Your task to perform on an android device: Clear the shopping cart on newegg.com. Search for duracell triple a on newegg.com, select the first entry, and add it to the cart. Image 0: 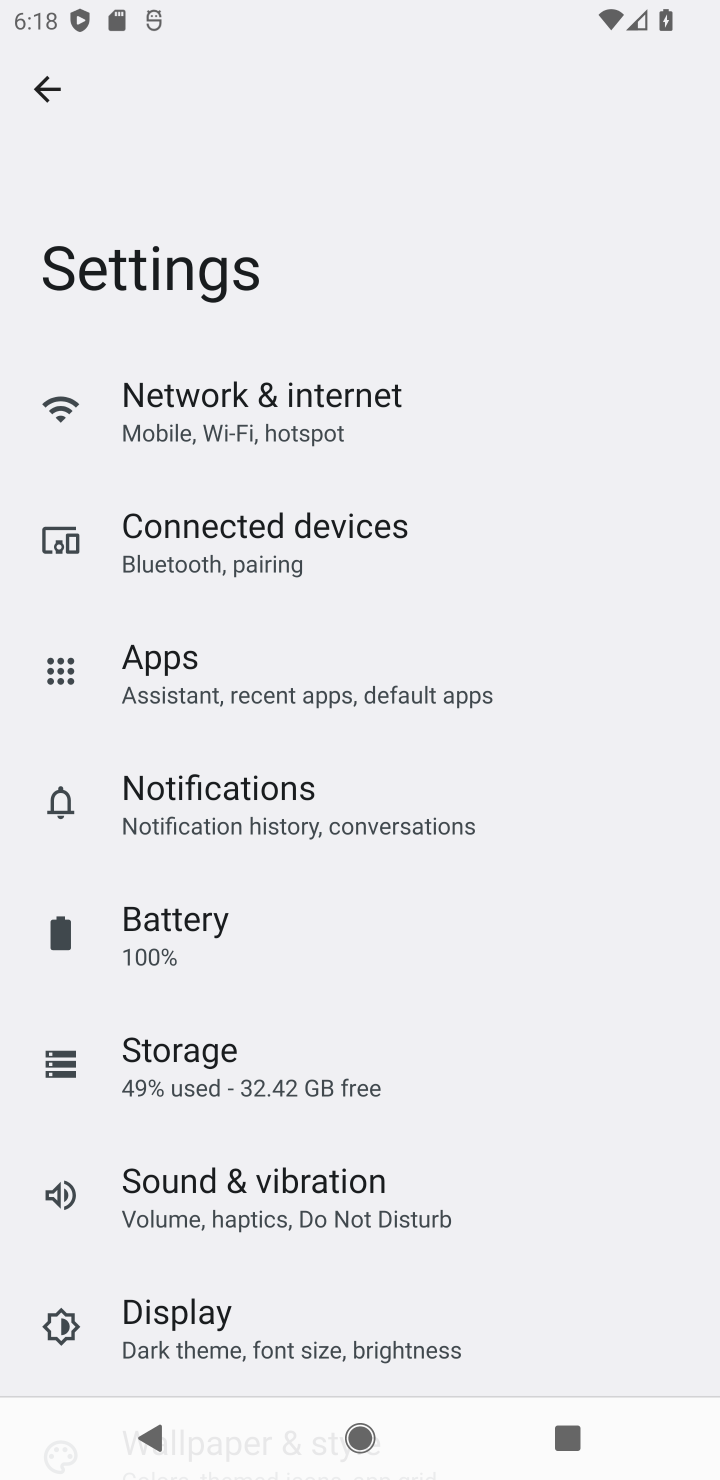
Step 0: press home button
Your task to perform on an android device: Clear the shopping cart on newegg.com. Search for duracell triple a on newegg.com, select the first entry, and add it to the cart. Image 1: 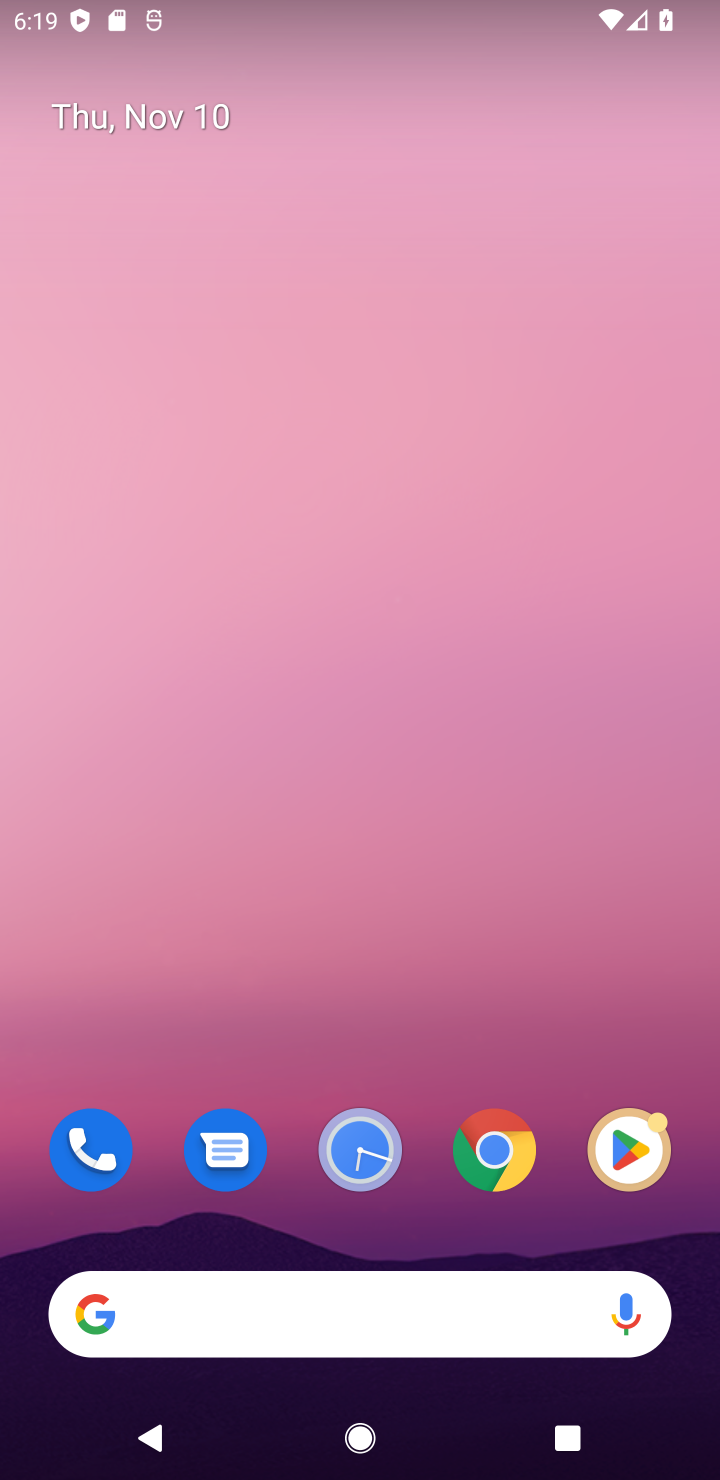
Step 1: click (491, 1156)
Your task to perform on an android device: Clear the shopping cart on newegg.com. Search for duracell triple a on newegg.com, select the first entry, and add it to the cart. Image 2: 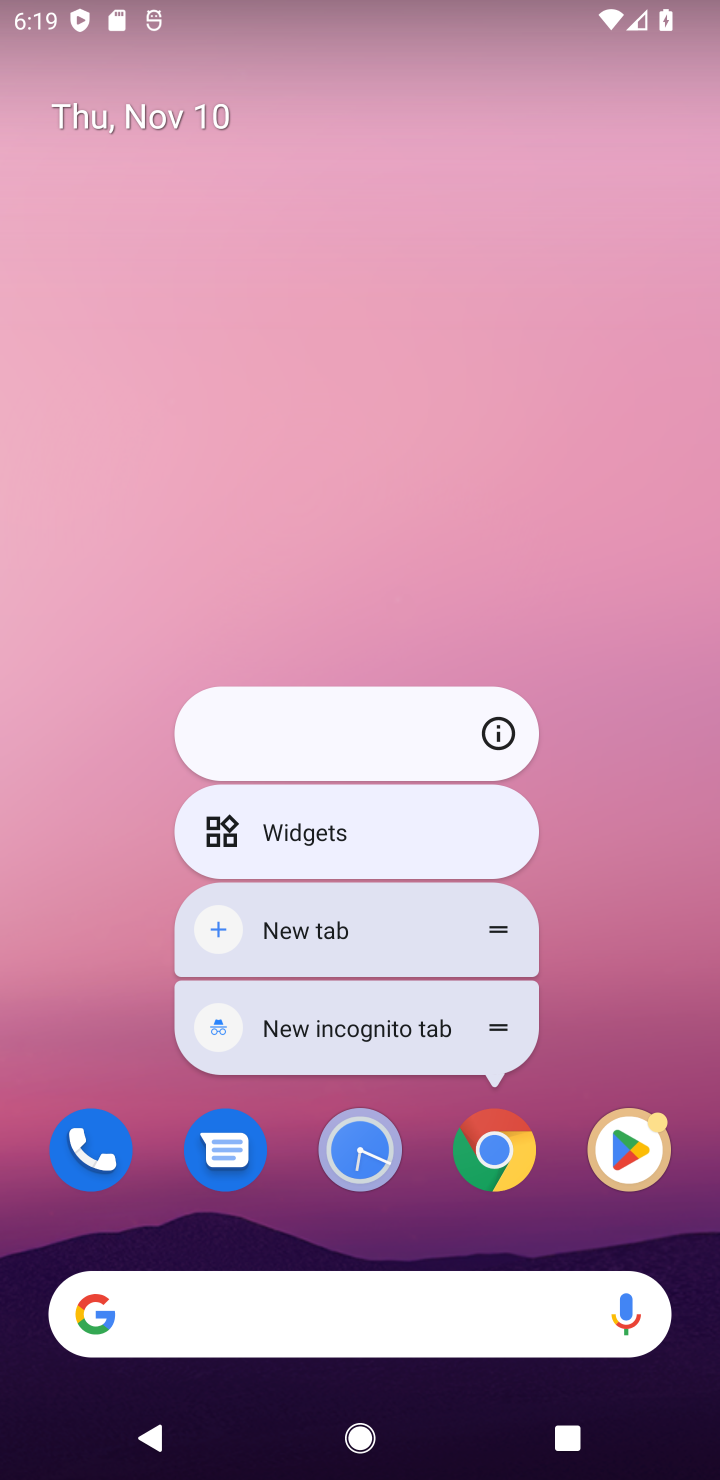
Step 2: click (487, 1159)
Your task to perform on an android device: Clear the shopping cart on newegg.com. Search for duracell triple a on newegg.com, select the first entry, and add it to the cart. Image 3: 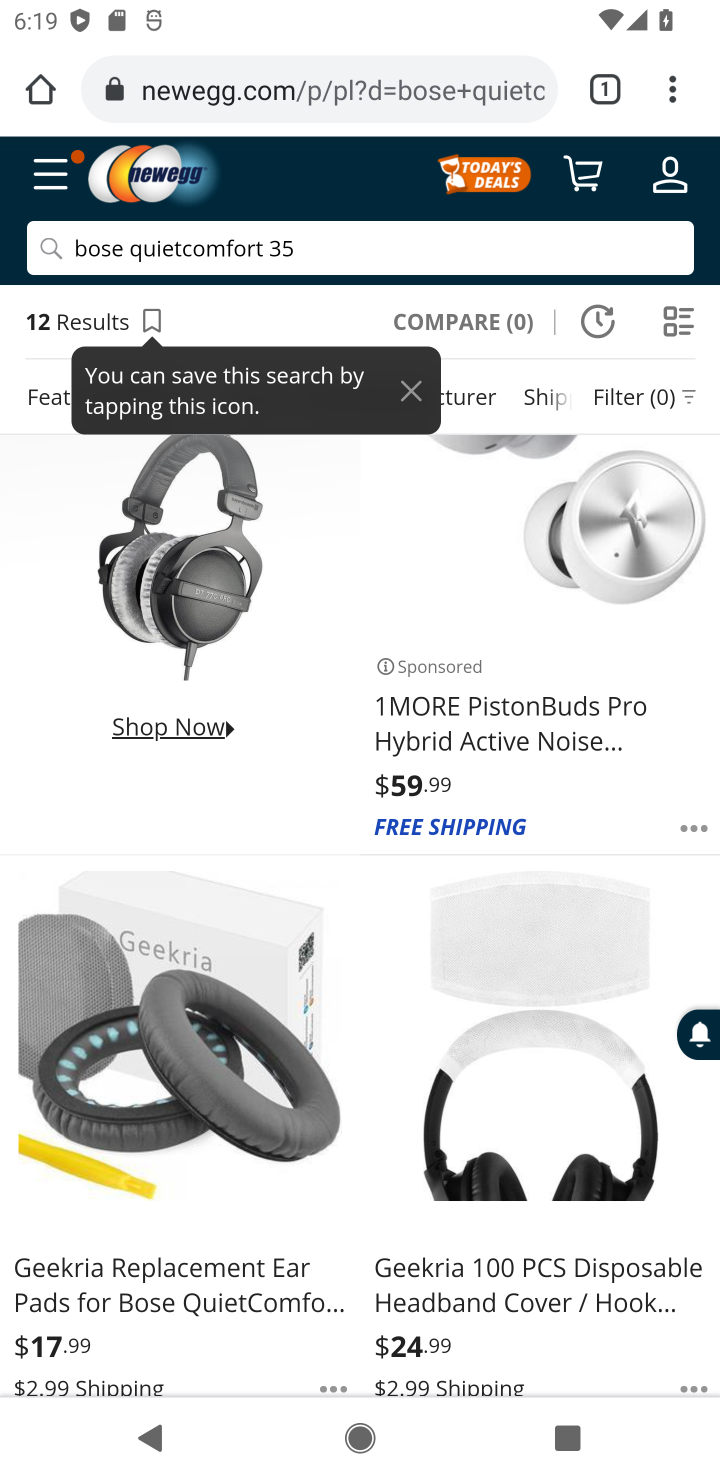
Step 3: click (361, 238)
Your task to perform on an android device: Clear the shopping cart on newegg.com. Search for duracell triple a on newegg.com, select the first entry, and add it to the cart. Image 4: 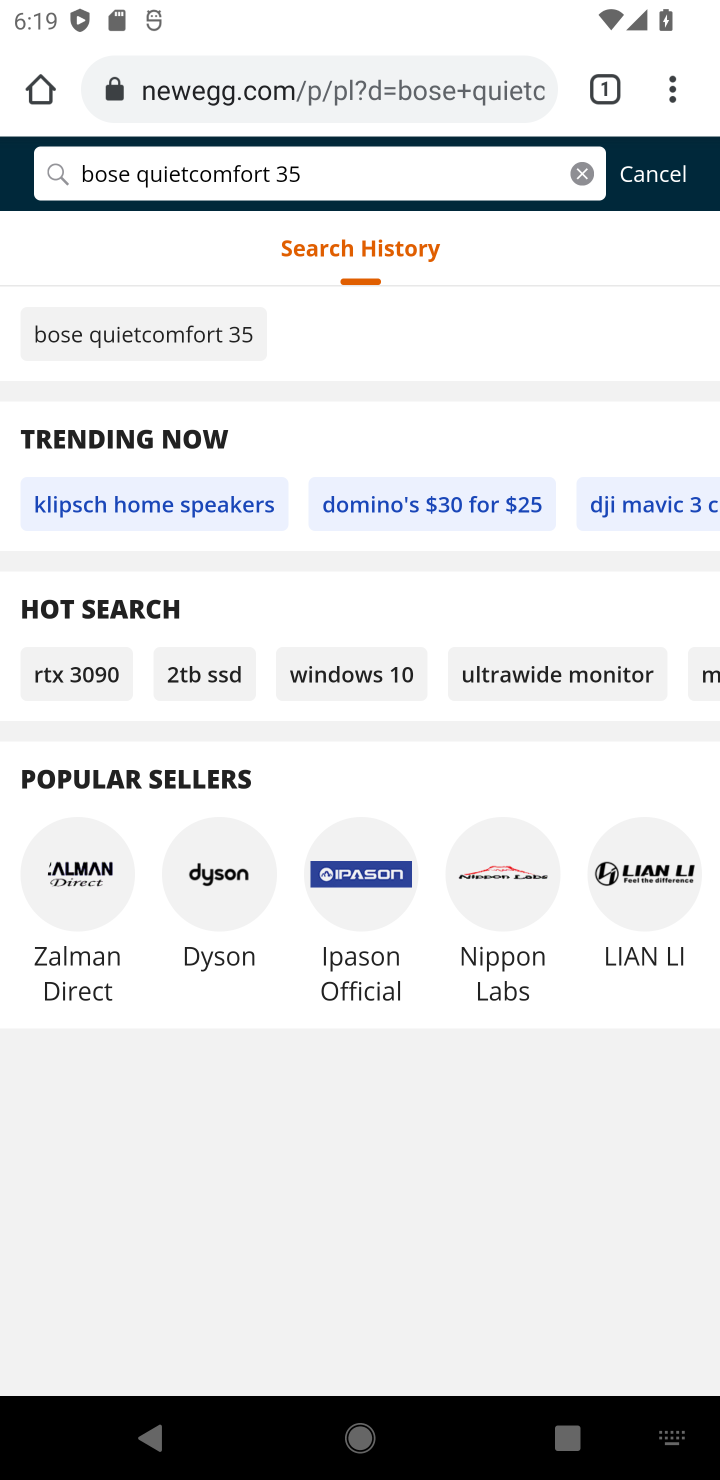
Step 4: click (580, 165)
Your task to perform on an android device: Clear the shopping cart on newegg.com. Search for duracell triple a on newegg.com, select the first entry, and add it to the cart. Image 5: 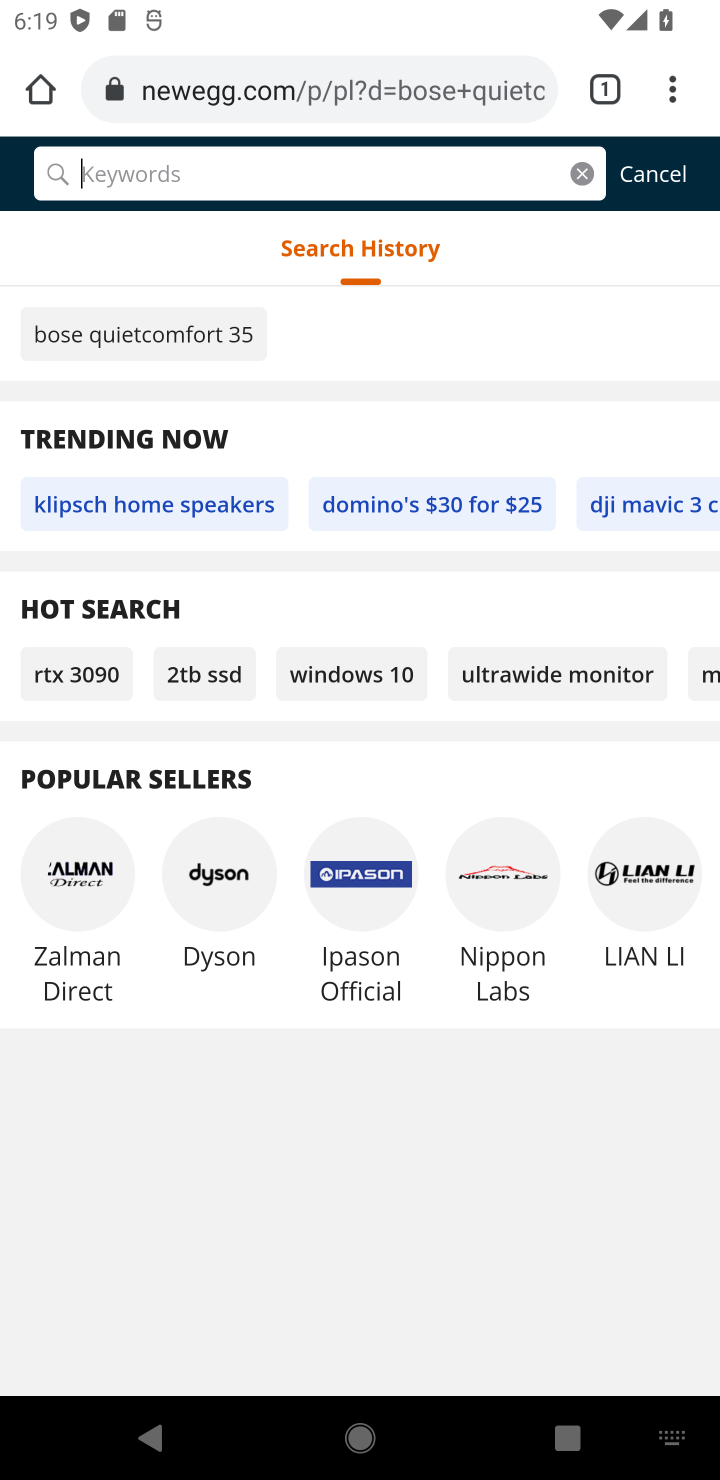
Step 5: type "duracell triple a"
Your task to perform on an android device: Clear the shopping cart on newegg.com. Search for duracell triple a on newegg.com, select the first entry, and add it to the cart. Image 6: 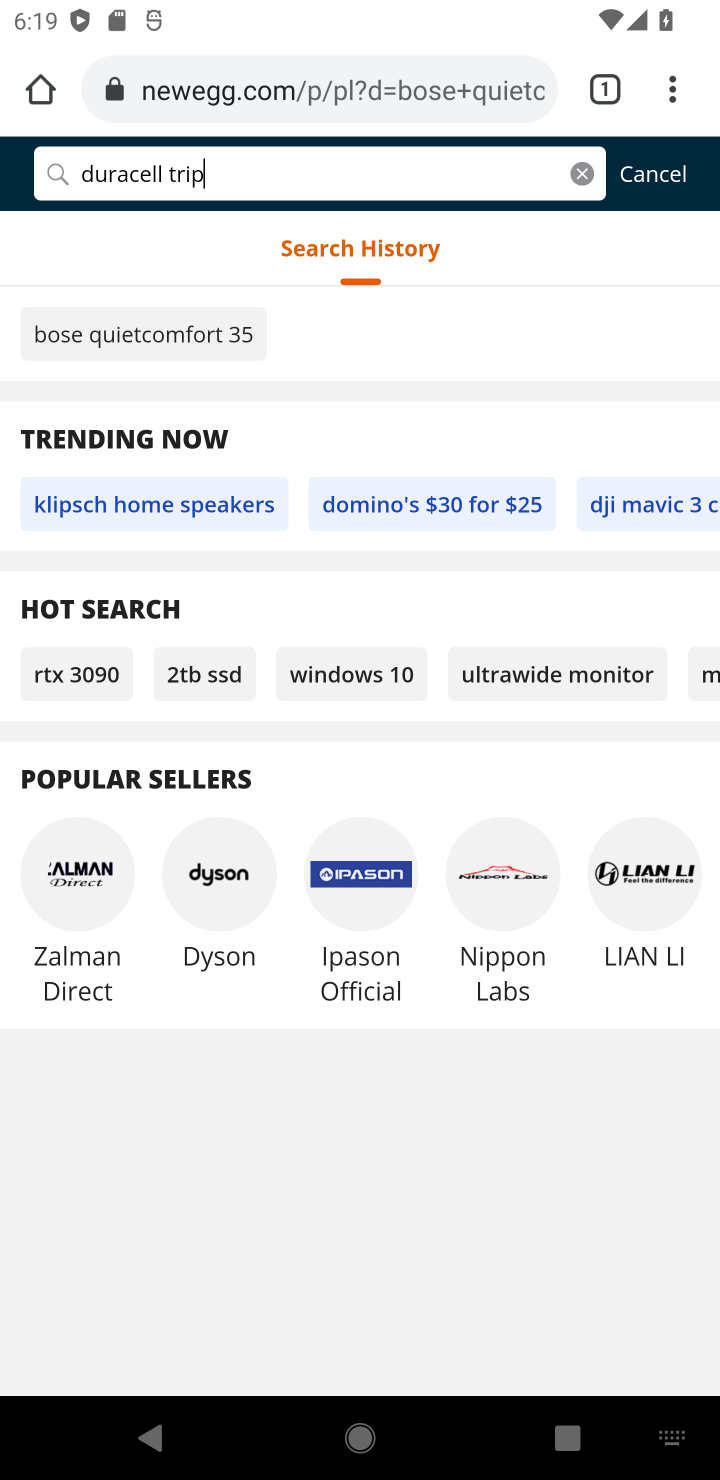
Step 6: press enter
Your task to perform on an android device: Clear the shopping cart on newegg.com. Search for duracell triple a on newegg.com, select the first entry, and add it to the cart. Image 7: 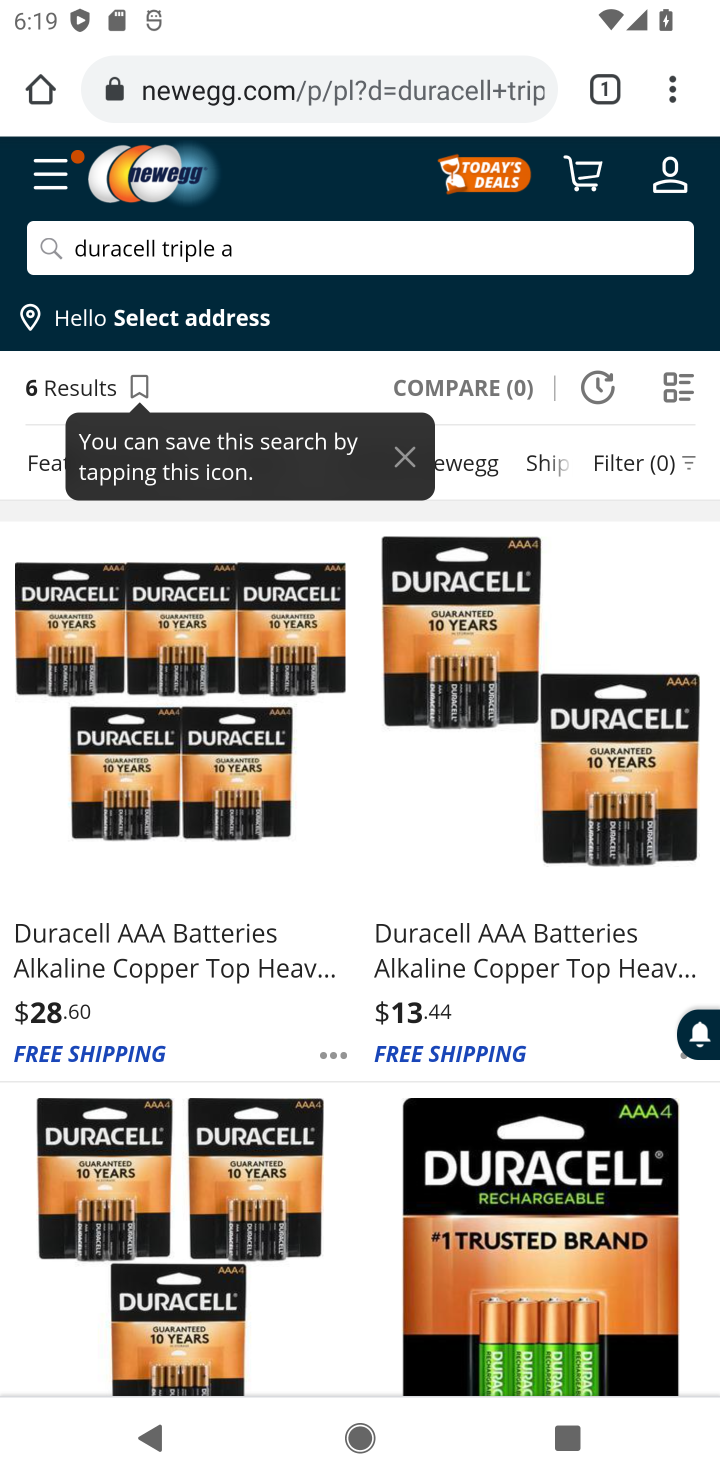
Step 7: click (199, 807)
Your task to perform on an android device: Clear the shopping cart on newegg.com. Search for duracell triple a on newegg.com, select the first entry, and add it to the cart. Image 8: 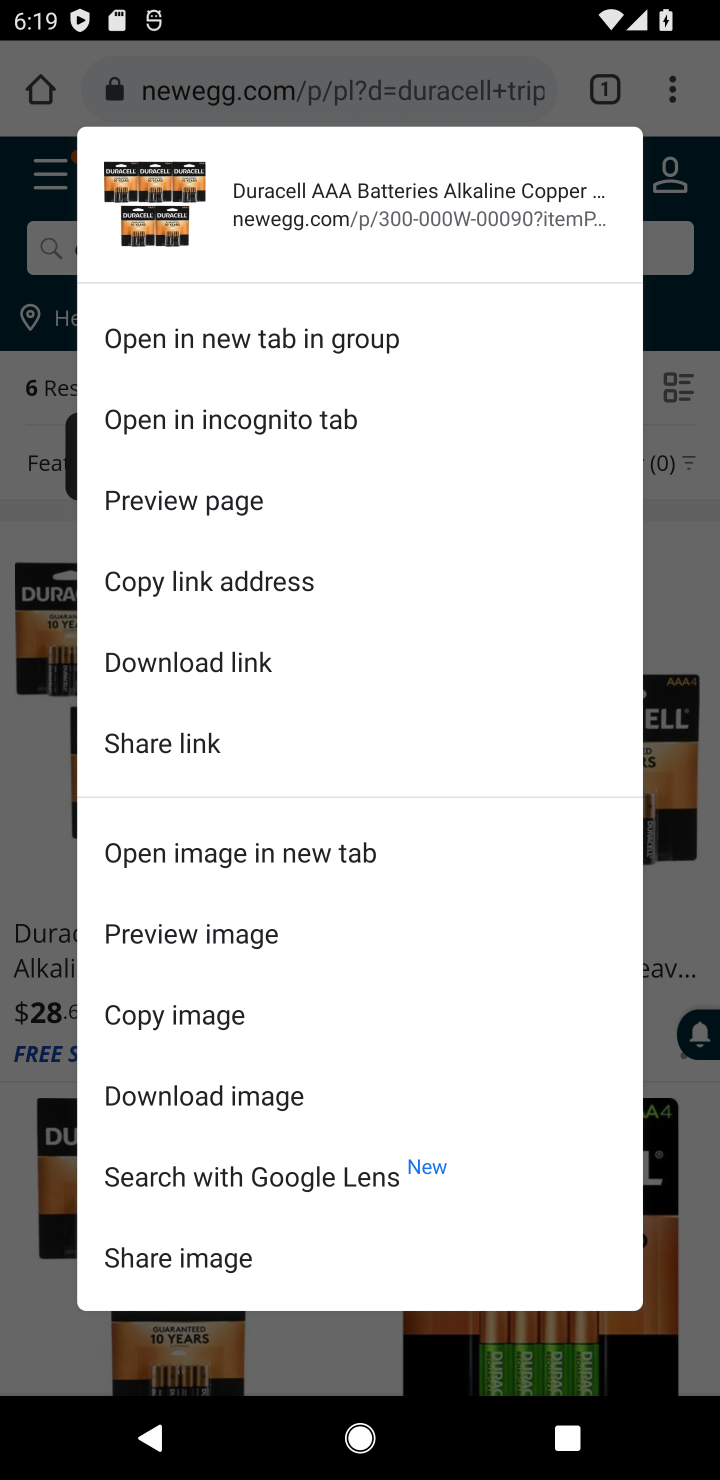
Step 8: click (27, 656)
Your task to perform on an android device: Clear the shopping cart on newegg.com. Search for duracell triple a on newegg.com, select the first entry, and add it to the cart. Image 9: 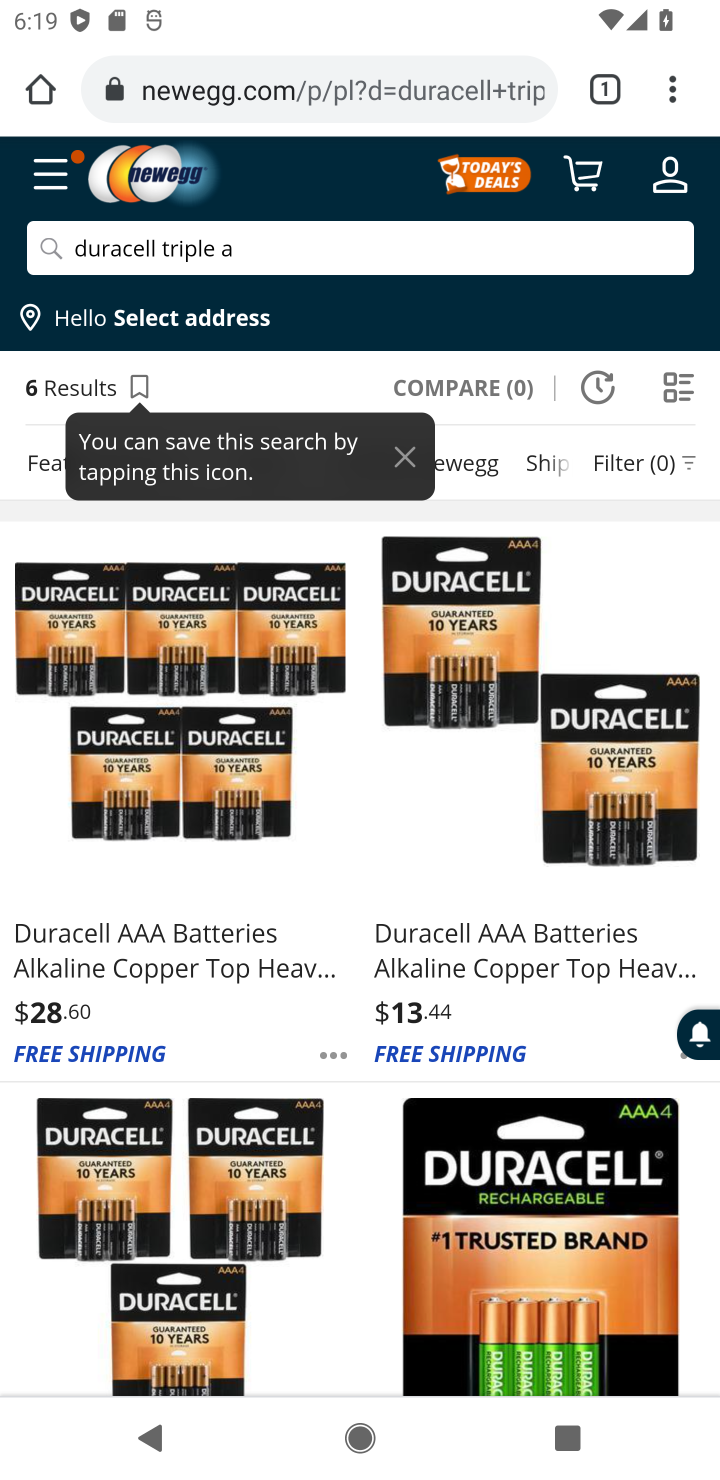
Step 9: click (98, 646)
Your task to perform on an android device: Clear the shopping cart on newegg.com. Search for duracell triple a on newegg.com, select the first entry, and add it to the cart. Image 10: 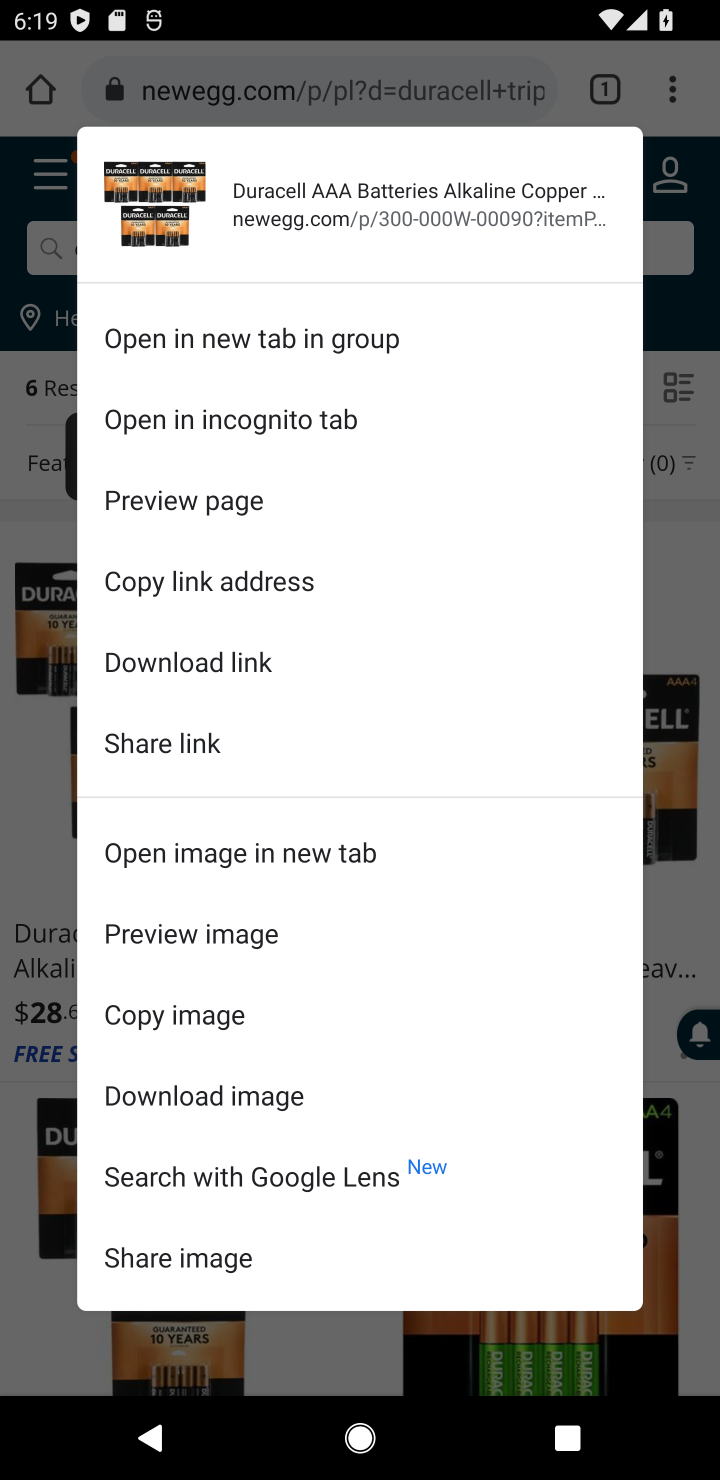
Step 10: click (56, 728)
Your task to perform on an android device: Clear the shopping cart on newegg.com. Search for duracell triple a on newegg.com, select the first entry, and add it to the cart. Image 11: 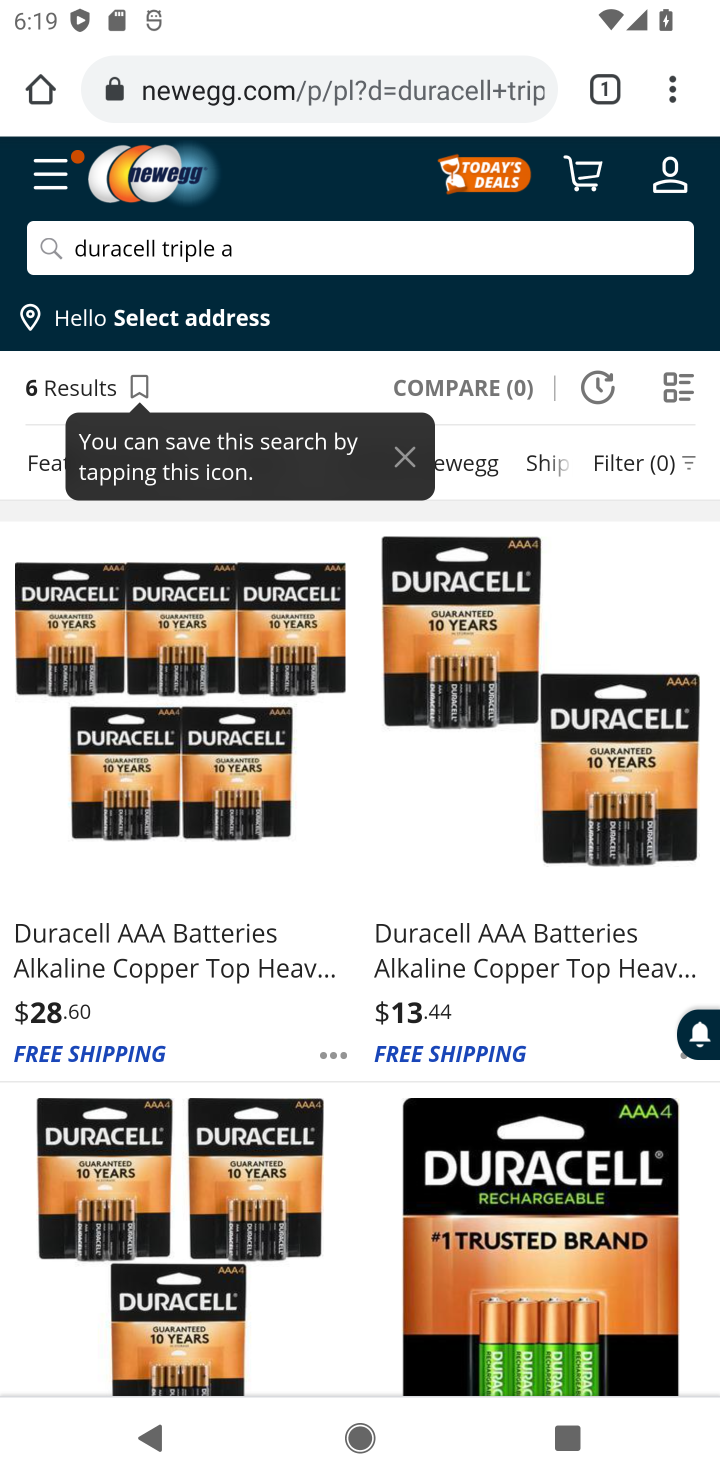
Step 11: click (199, 924)
Your task to perform on an android device: Clear the shopping cart on newegg.com. Search for duracell triple a on newegg.com, select the first entry, and add it to the cart. Image 12: 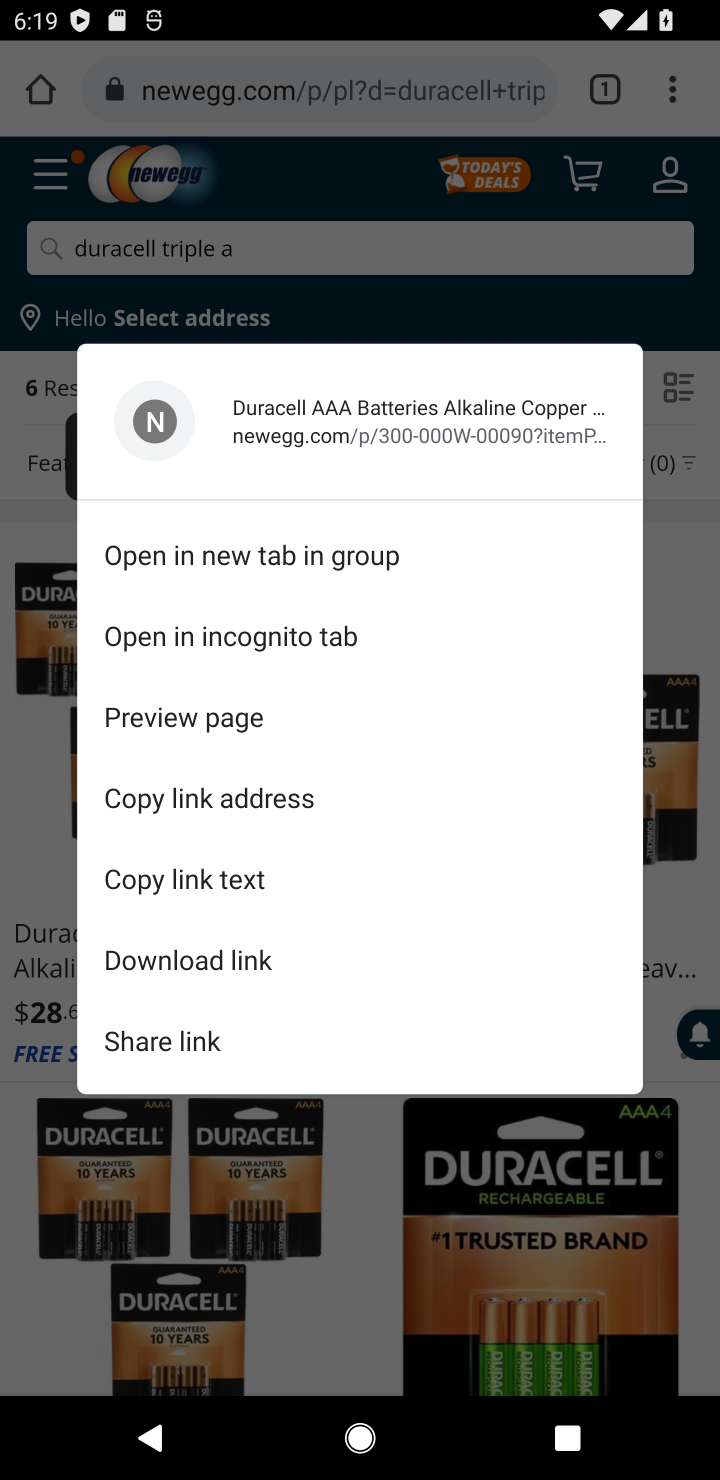
Step 12: click (41, 930)
Your task to perform on an android device: Clear the shopping cart on newegg.com. Search for duracell triple a on newegg.com, select the first entry, and add it to the cart. Image 13: 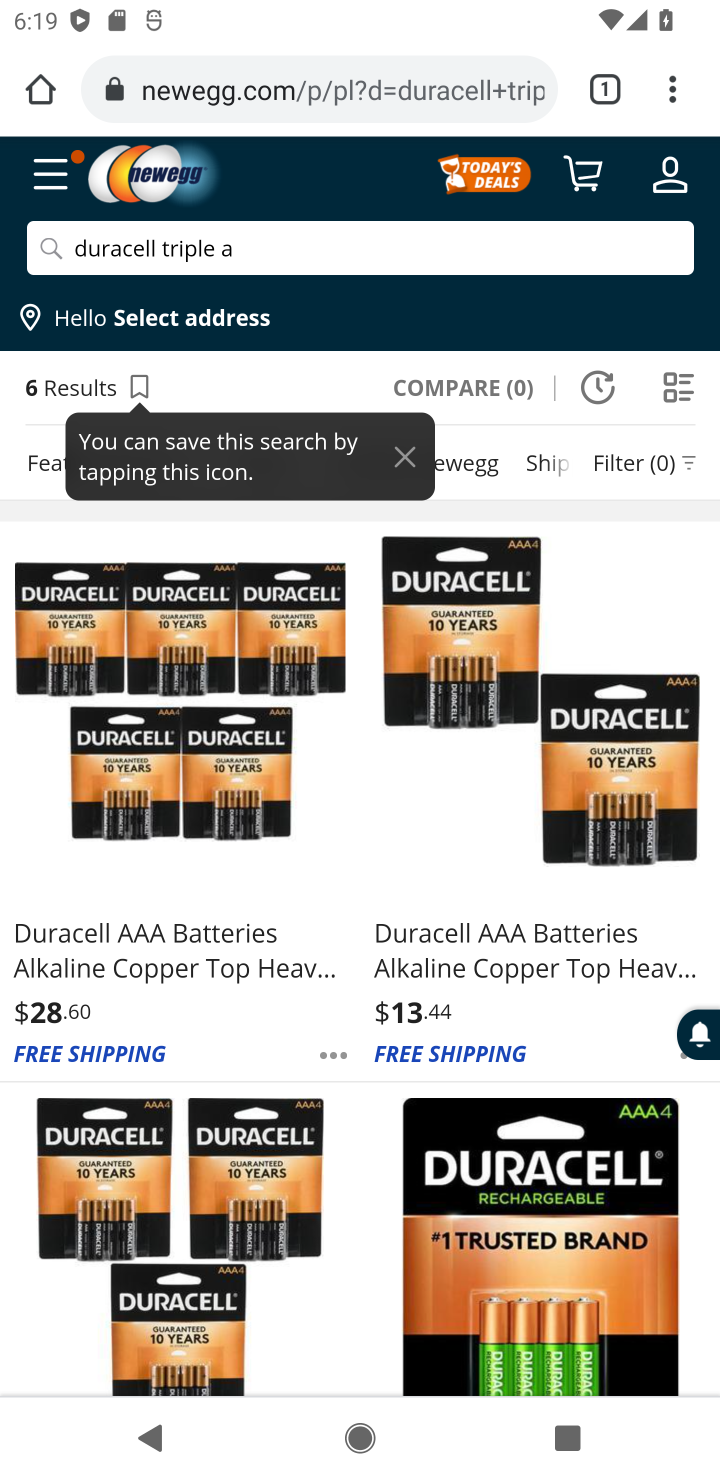
Step 13: click (205, 961)
Your task to perform on an android device: Clear the shopping cart on newegg.com. Search for duracell triple a on newegg.com, select the first entry, and add it to the cart. Image 14: 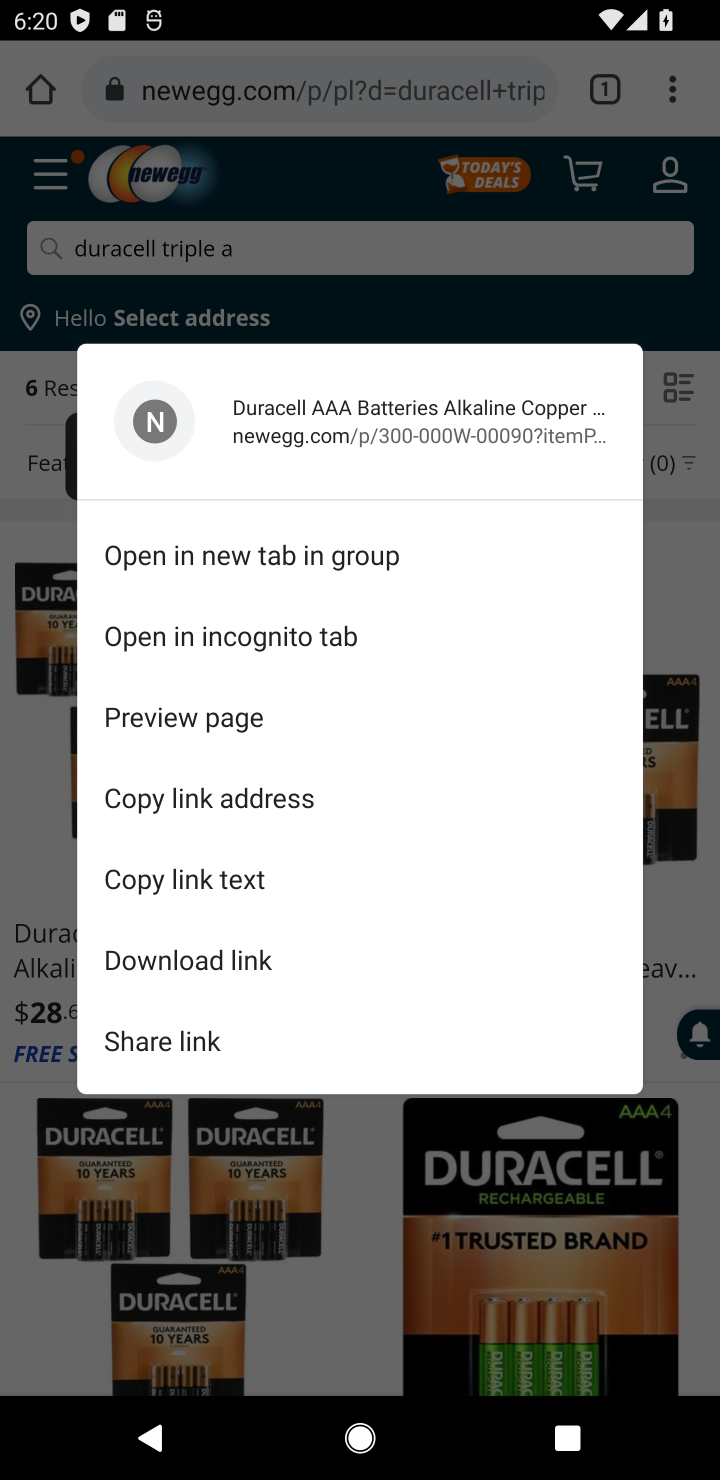
Step 14: click (64, 927)
Your task to perform on an android device: Clear the shopping cart on newegg.com. Search for duracell triple a on newegg.com, select the first entry, and add it to the cart. Image 15: 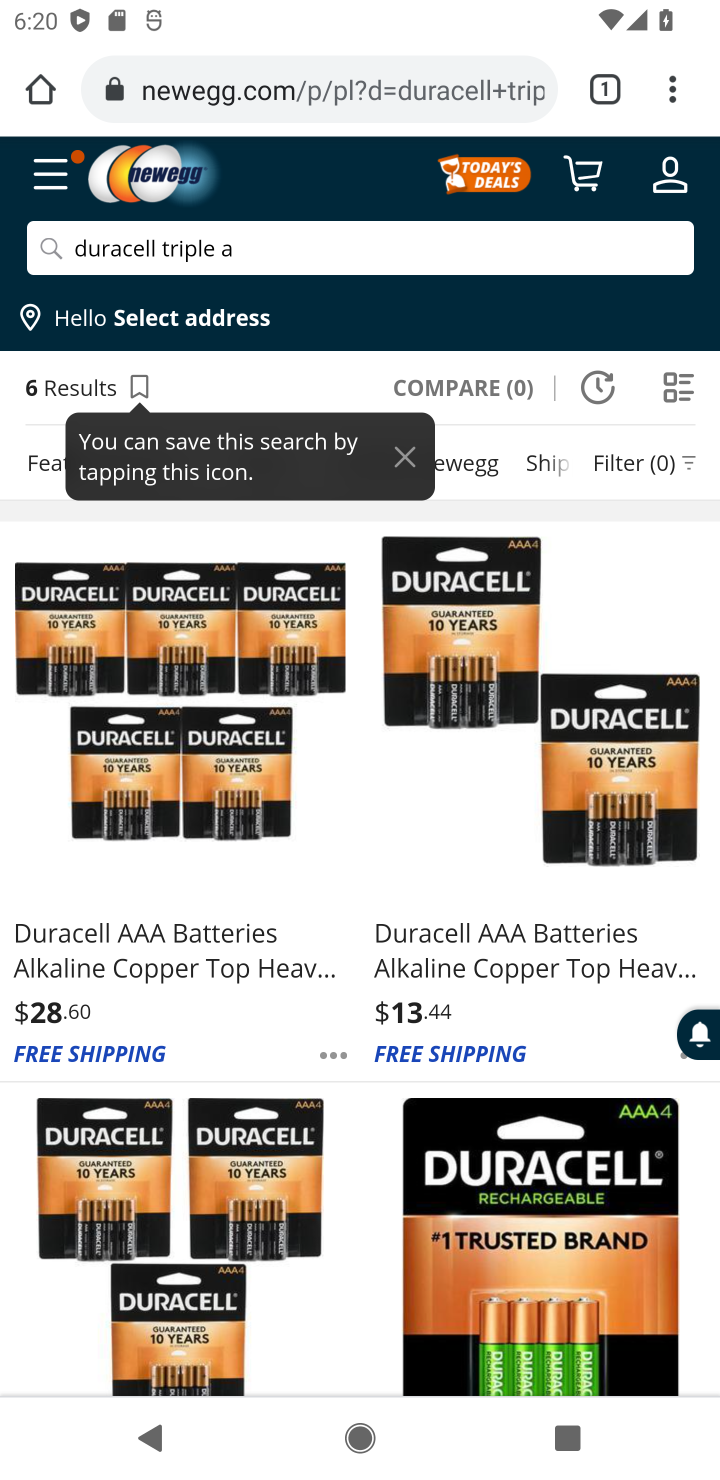
Step 15: click (216, 927)
Your task to perform on an android device: Clear the shopping cart on newegg.com. Search for duracell triple a on newegg.com, select the first entry, and add it to the cart. Image 16: 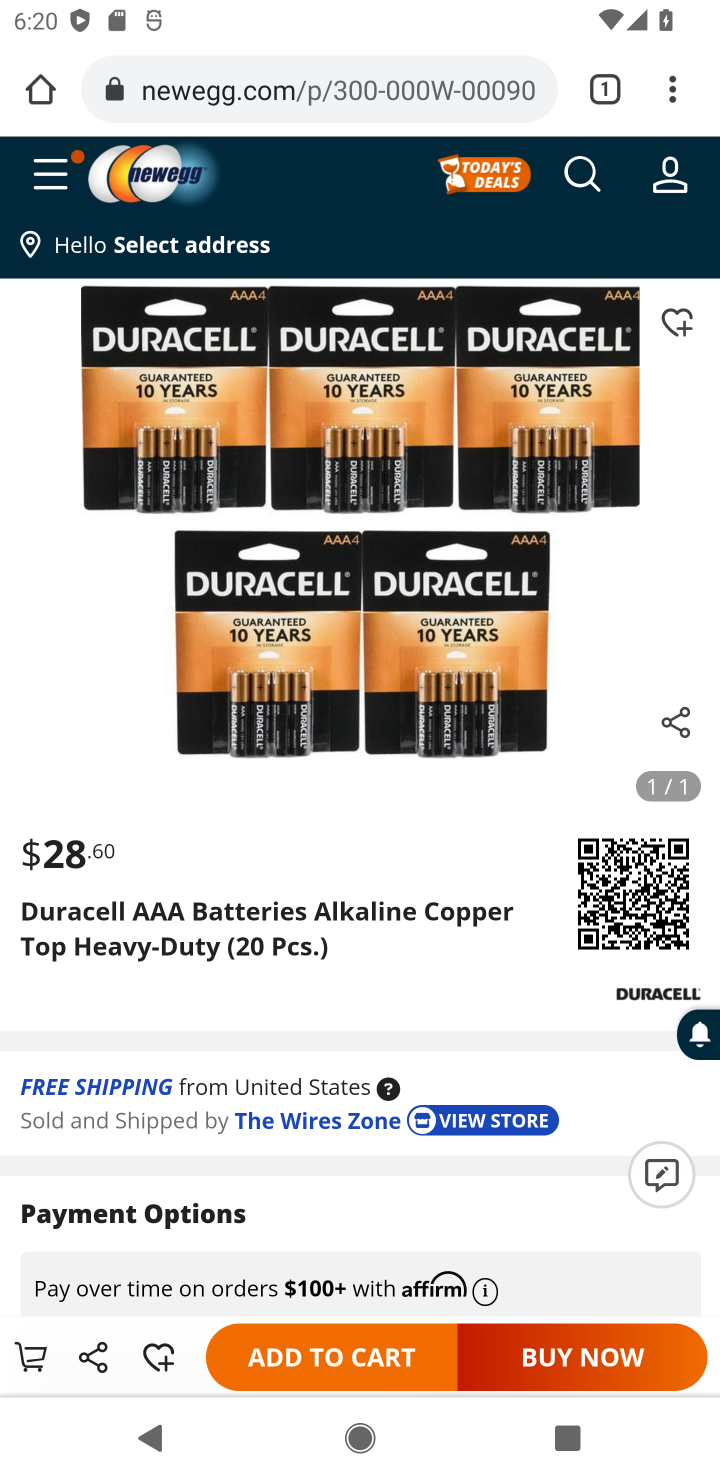
Step 16: click (314, 1345)
Your task to perform on an android device: Clear the shopping cart on newegg.com. Search for duracell triple a on newegg.com, select the first entry, and add it to the cart. Image 17: 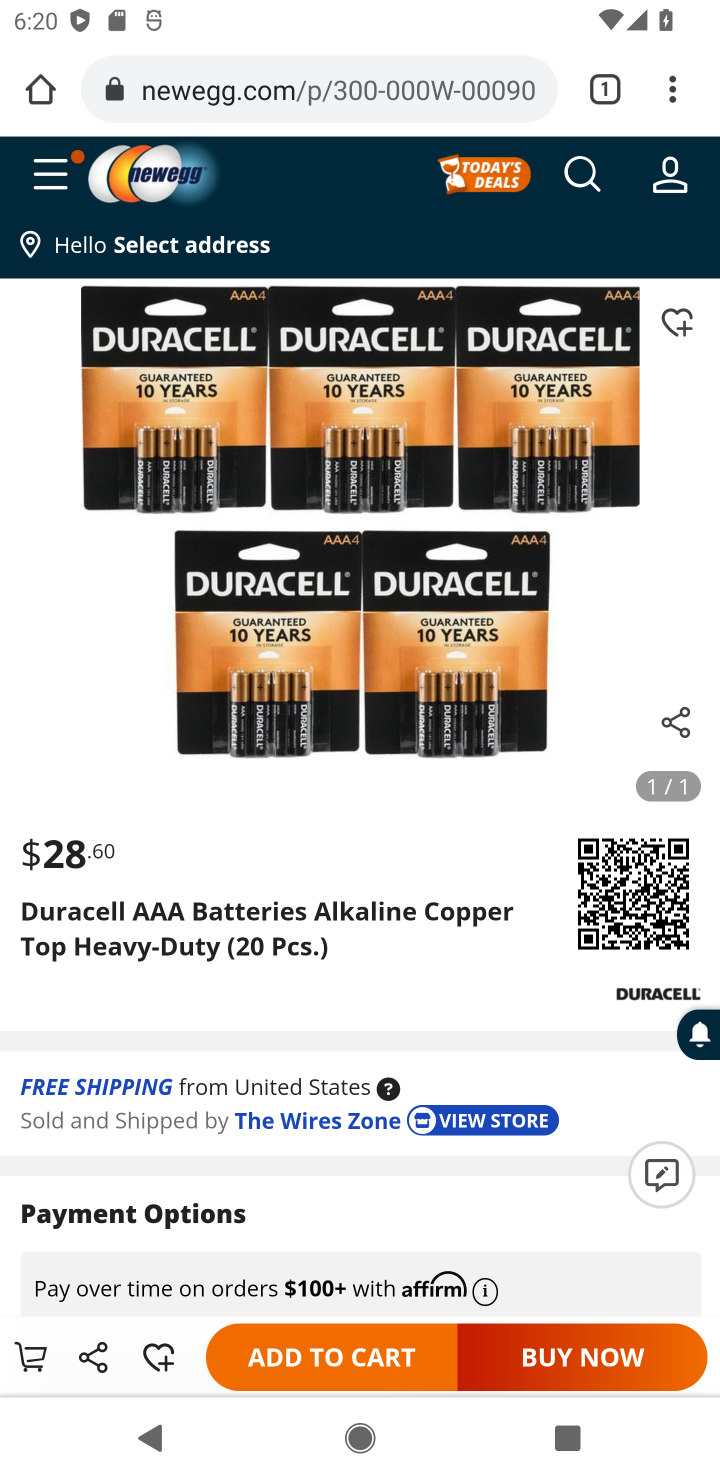
Step 17: click (322, 1357)
Your task to perform on an android device: Clear the shopping cart on newegg.com. Search for duracell triple a on newegg.com, select the first entry, and add it to the cart. Image 18: 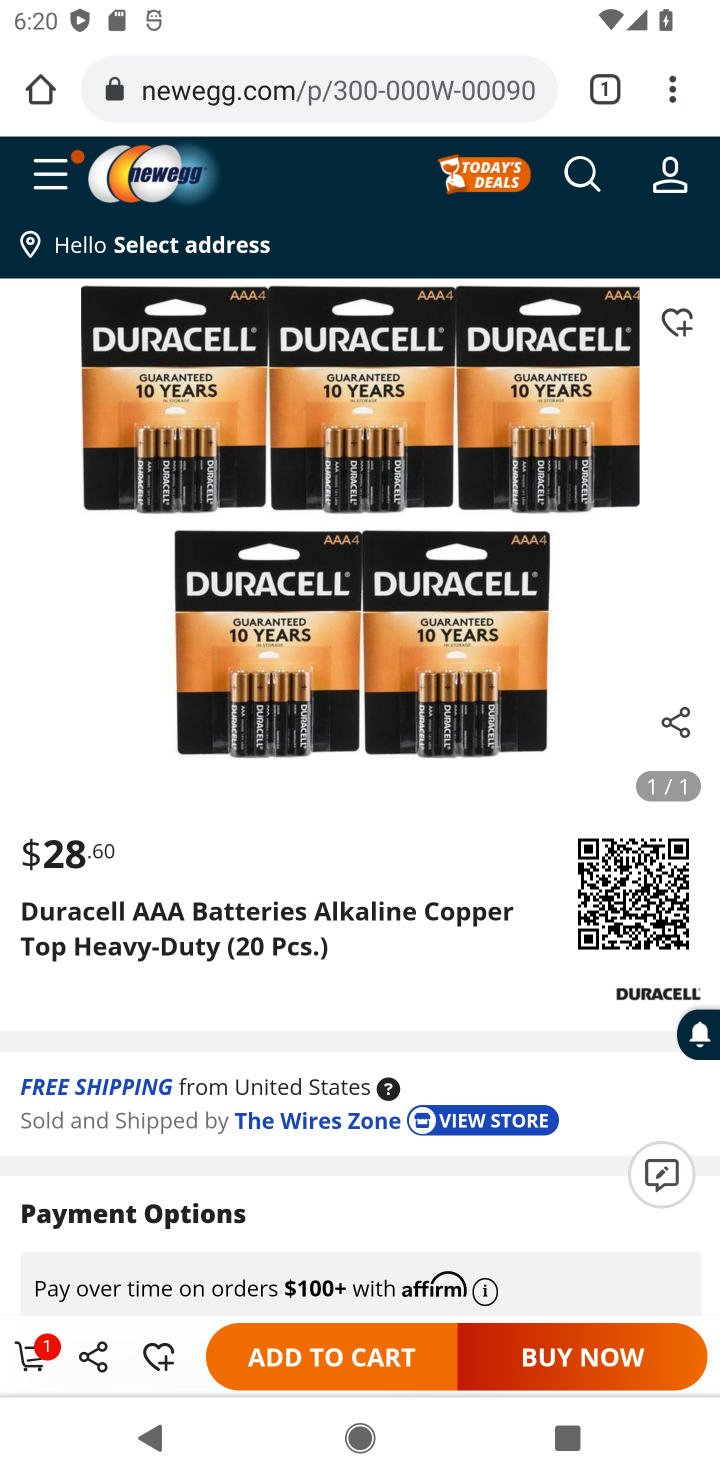
Step 18: click (32, 1354)
Your task to perform on an android device: Clear the shopping cart on newegg.com. Search for duracell triple a on newegg.com, select the first entry, and add it to the cart. Image 19: 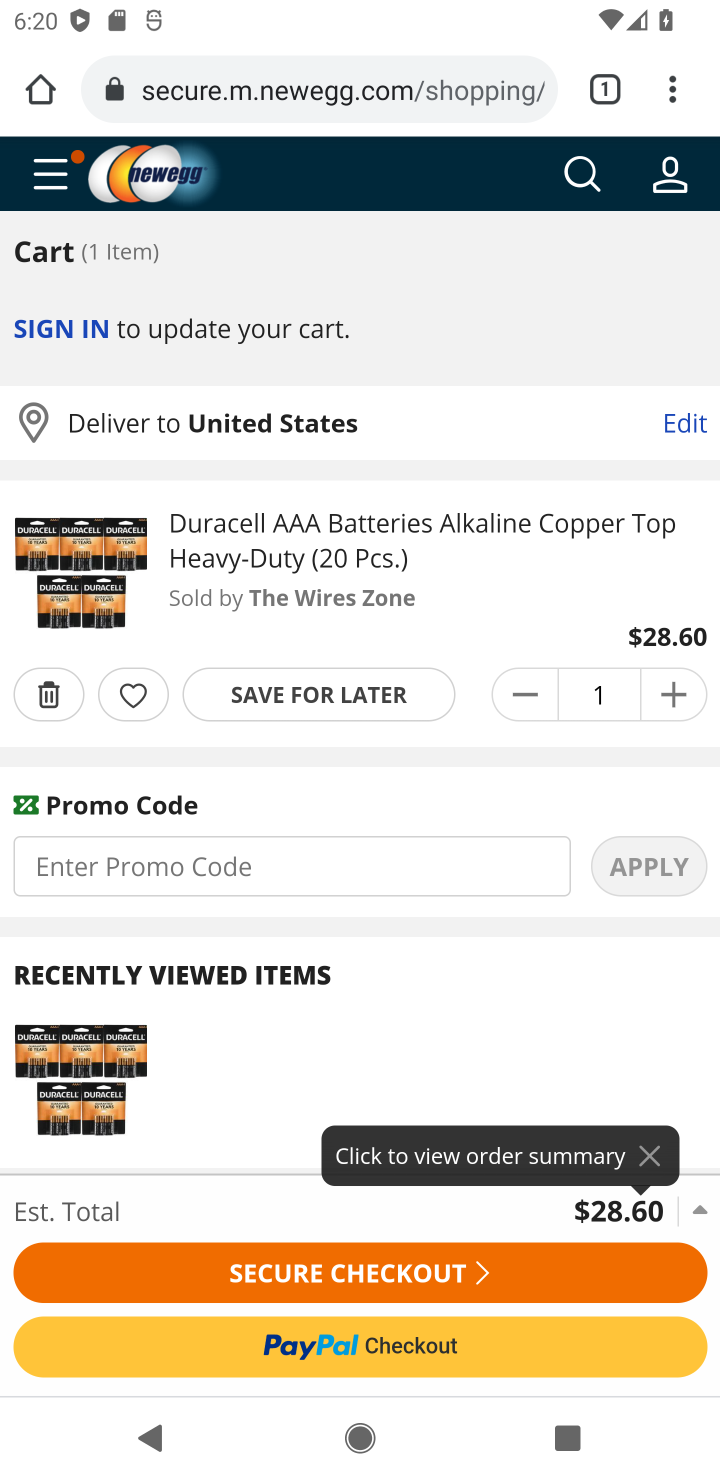
Step 19: task complete